Your task to perform on an android device: Open CNN.com Image 0: 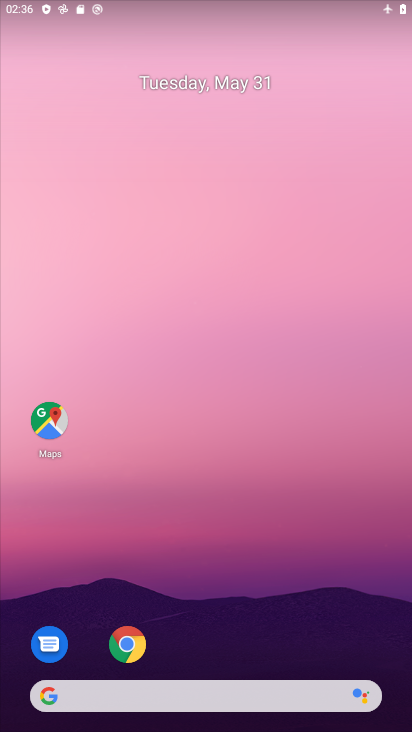
Step 0: click (130, 641)
Your task to perform on an android device: Open CNN.com Image 1: 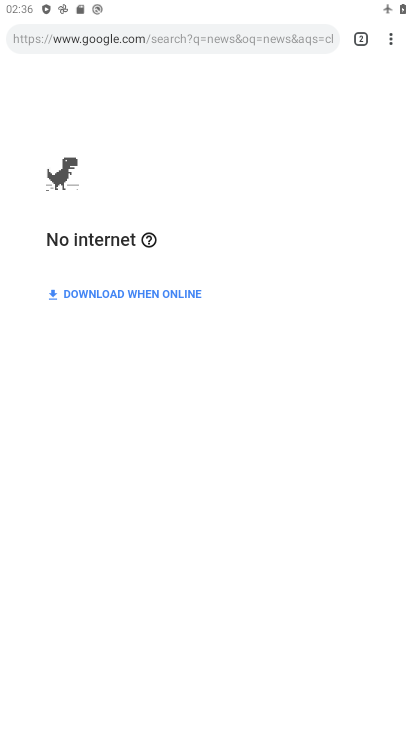
Step 1: click (287, 41)
Your task to perform on an android device: Open CNN.com Image 2: 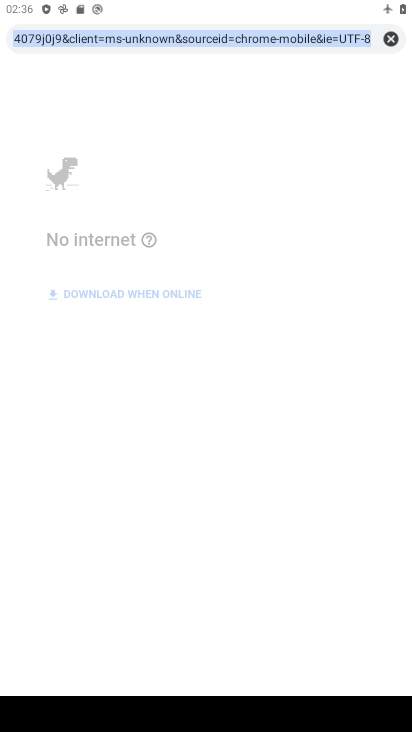
Step 2: type "cnn.com"
Your task to perform on an android device: Open CNN.com Image 3: 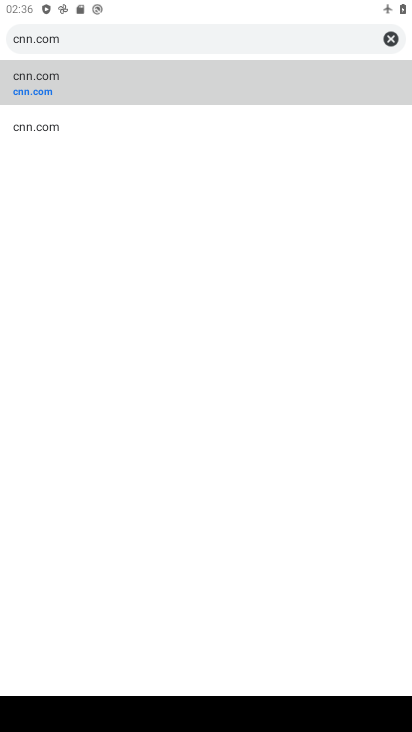
Step 3: click (20, 92)
Your task to perform on an android device: Open CNN.com Image 4: 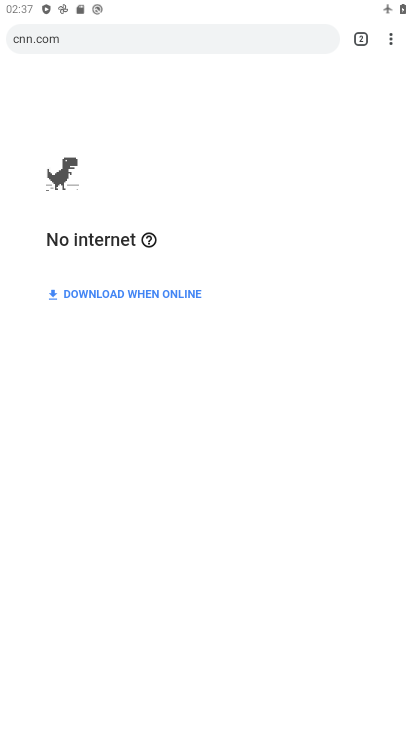
Step 4: task complete